Your task to perform on an android device: When is my next appointment? Image 0: 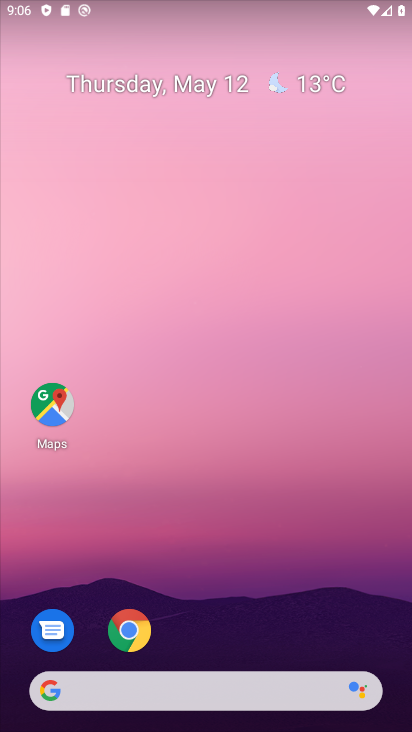
Step 0: drag from (204, 609) to (318, 88)
Your task to perform on an android device: When is my next appointment? Image 1: 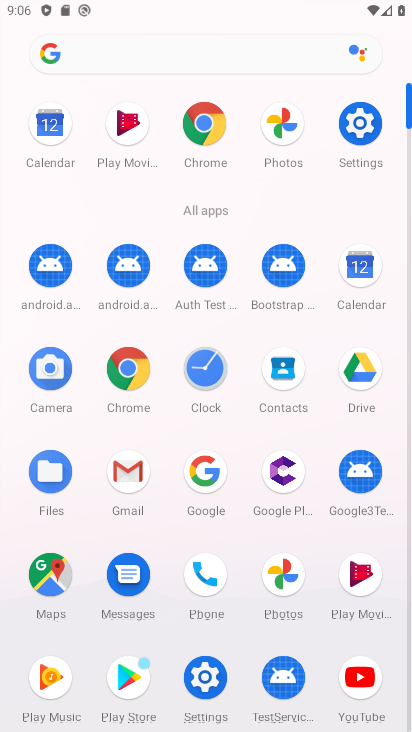
Step 1: click (360, 259)
Your task to perform on an android device: When is my next appointment? Image 2: 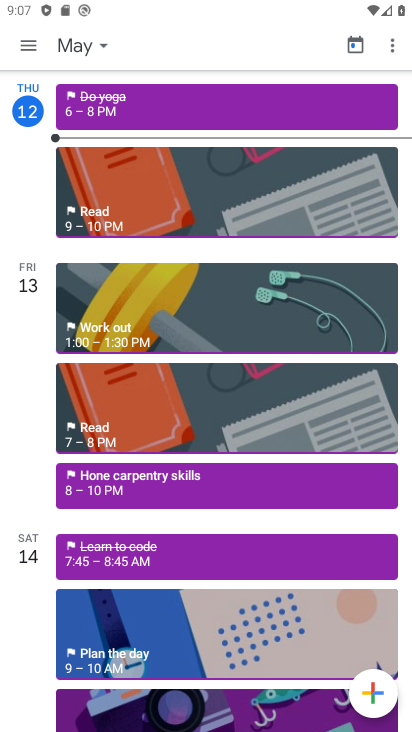
Step 2: task complete